Your task to perform on an android device: add a label to a message in the gmail app Image 0: 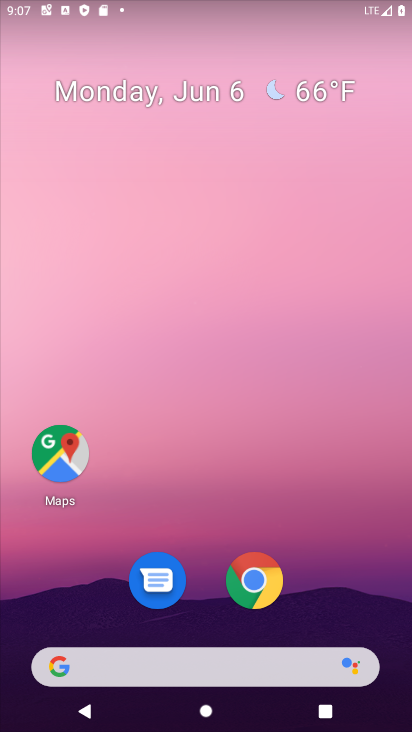
Step 0: drag from (363, 594) to (386, 0)
Your task to perform on an android device: add a label to a message in the gmail app Image 1: 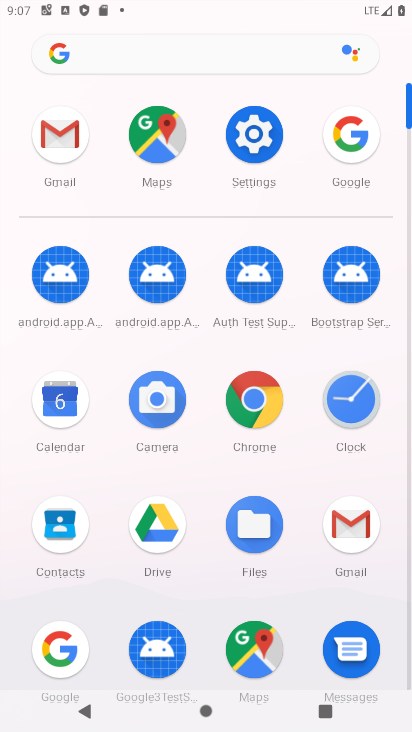
Step 1: click (58, 121)
Your task to perform on an android device: add a label to a message in the gmail app Image 2: 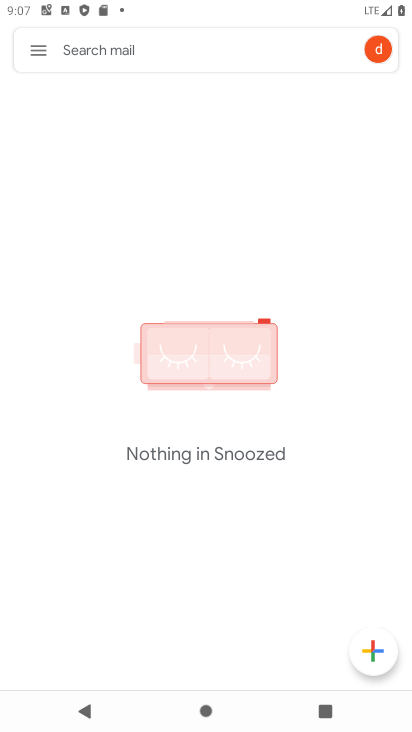
Step 2: click (37, 55)
Your task to perform on an android device: add a label to a message in the gmail app Image 3: 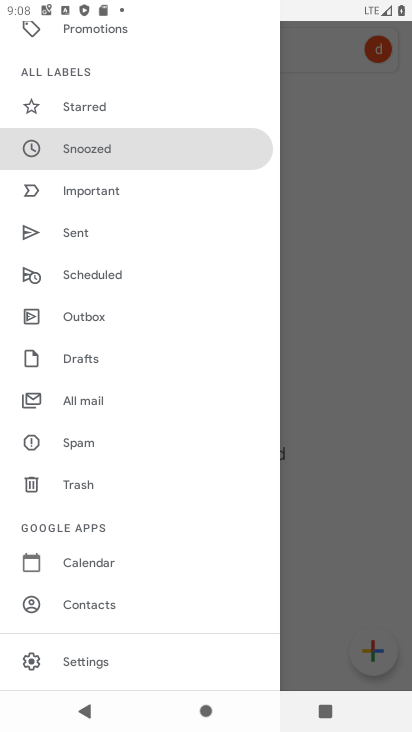
Step 3: drag from (122, 211) to (149, 579)
Your task to perform on an android device: add a label to a message in the gmail app Image 4: 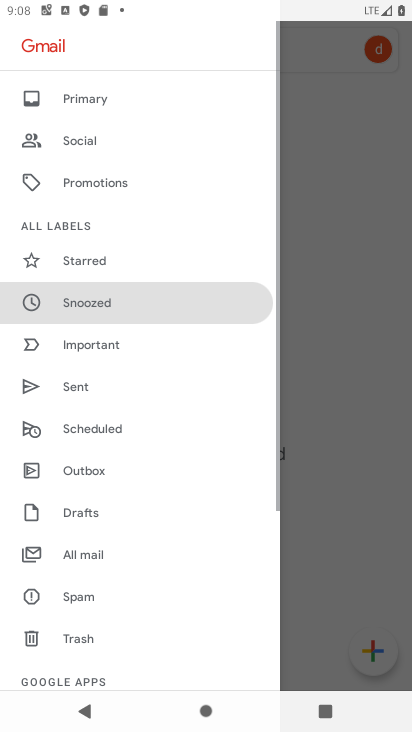
Step 4: click (69, 554)
Your task to perform on an android device: add a label to a message in the gmail app Image 5: 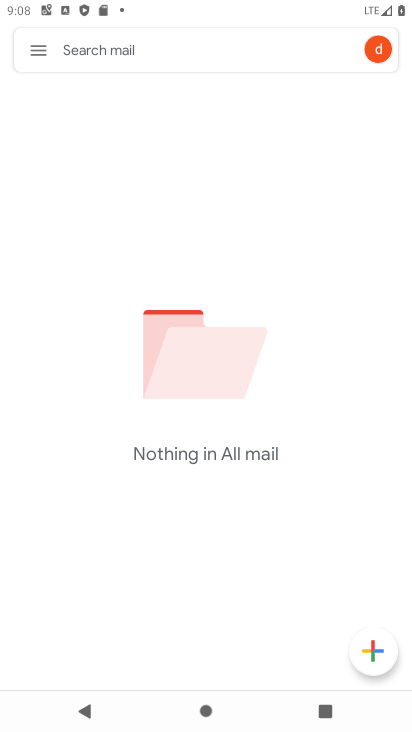
Step 5: task complete